Your task to perform on an android device: Open Google Chrome and open the bookmarks view Image 0: 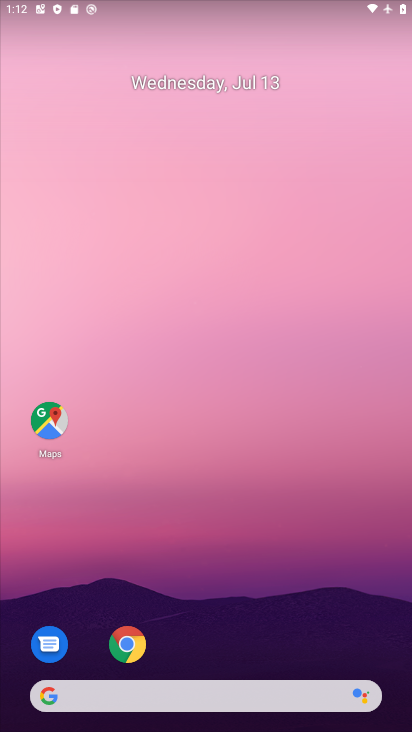
Step 0: drag from (274, 520) to (302, 103)
Your task to perform on an android device: Open Google Chrome and open the bookmarks view Image 1: 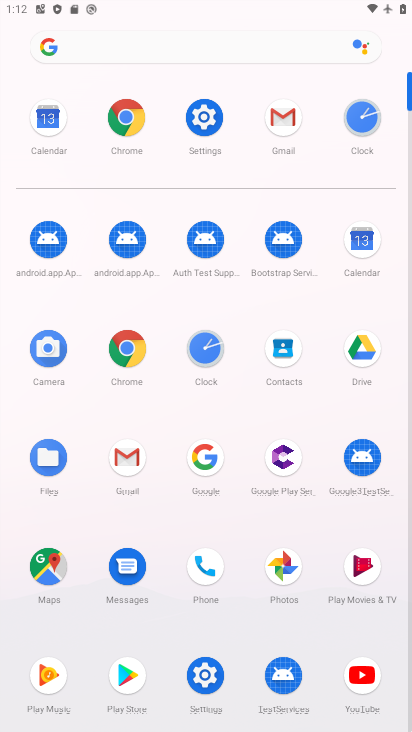
Step 1: click (127, 118)
Your task to perform on an android device: Open Google Chrome and open the bookmarks view Image 2: 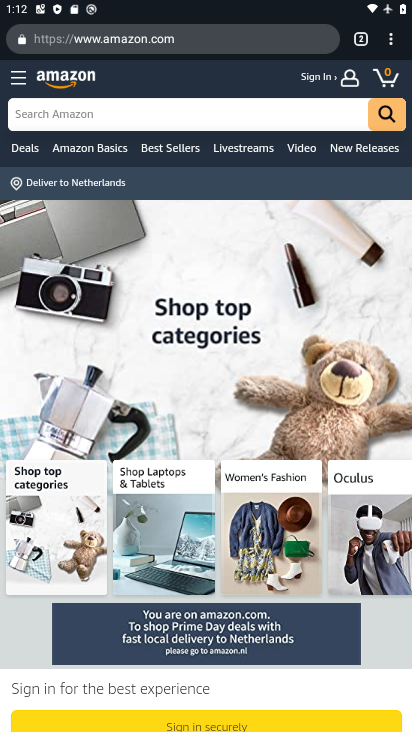
Step 2: task complete